Your task to perform on an android device: turn off priority inbox in the gmail app Image 0: 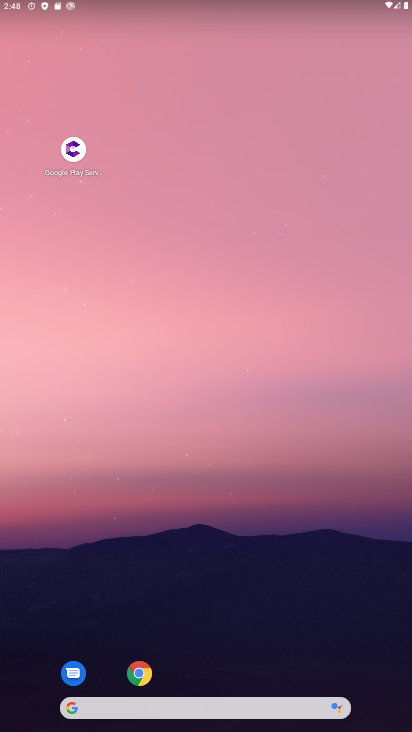
Step 0: drag from (0, 711) to (198, 21)
Your task to perform on an android device: turn off priority inbox in the gmail app Image 1: 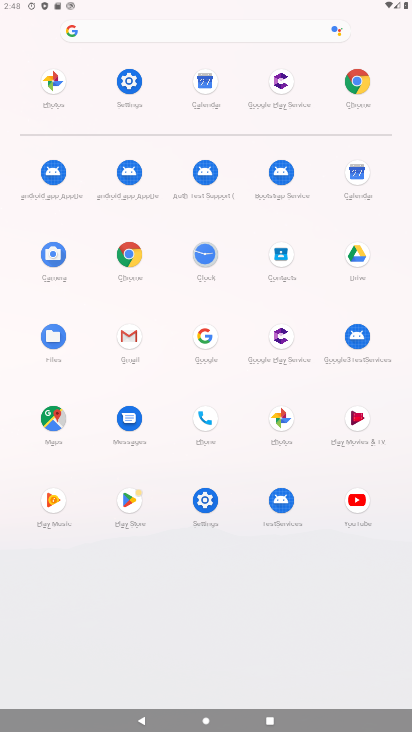
Step 1: click (134, 338)
Your task to perform on an android device: turn off priority inbox in the gmail app Image 2: 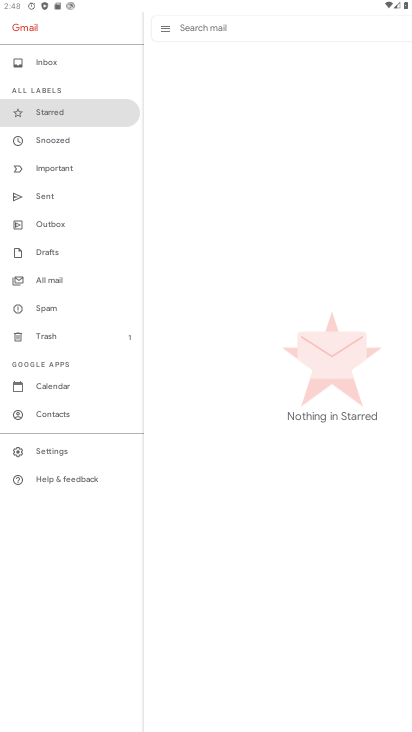
Step 2: click (45, 451)
Your task to perform on an android device: turn off priority inbox in the gmail app Image 3: 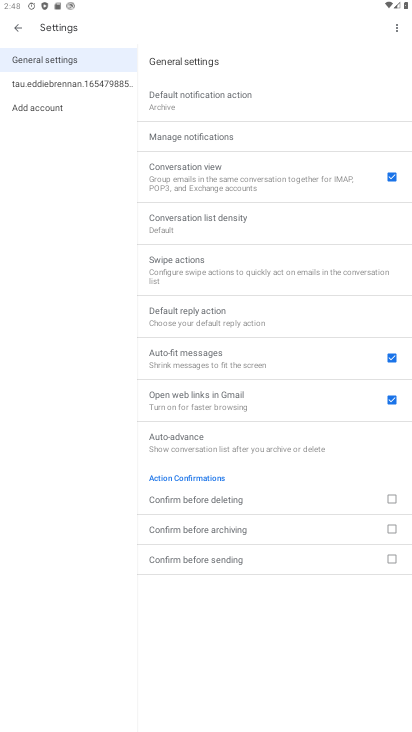
Step 3: click (60, 86)
Your task to perform on an android device: turn off priority inbox in the gmail app Image 4: 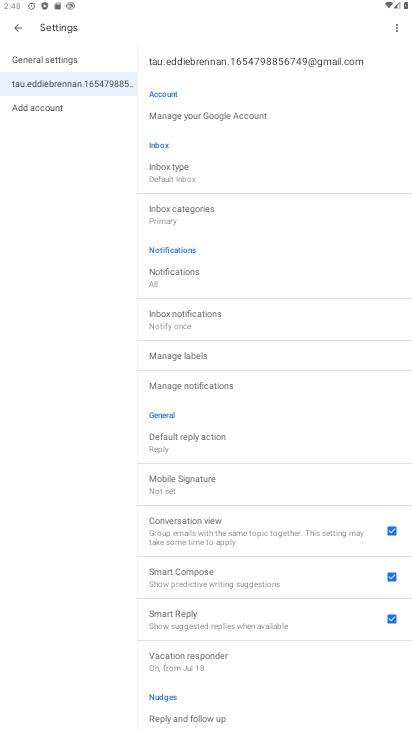
Step 4: click (189, 170)
Your task to perform on an android device: turn off priority inbox in the gmail app Image 5: 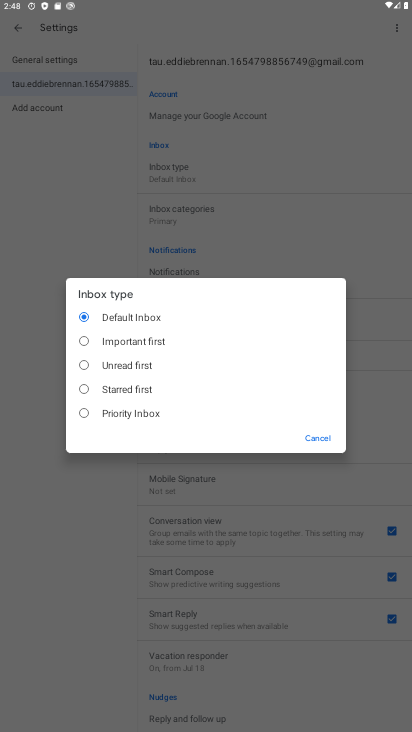
Step 5: click (90, 413)
Your task to perform on an android device: turn off priority inbox in the gmail app Image 6: 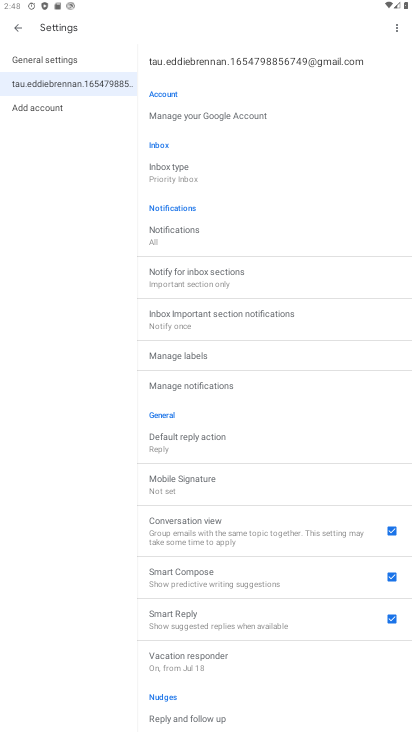
Step 6: task complete